Your task to perform on an android device: Go to network settings Image 0: 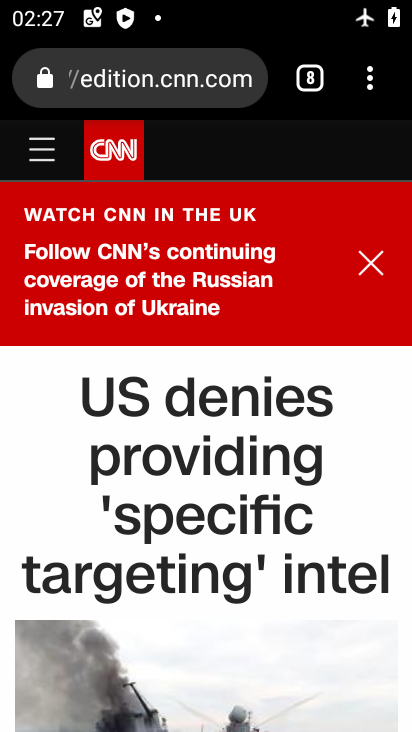
Step 0: press home button
Your task to perform on an android device: Go to network settings Image 1: 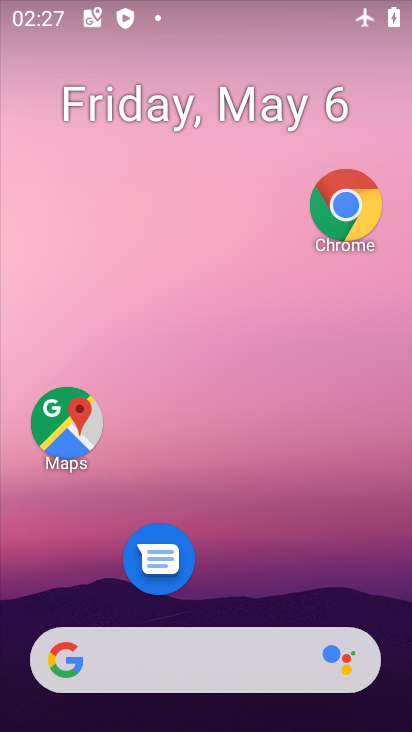
Step 1: drag from (148, 662) to (379, 8)
Your task to perform on an android device: Go to network settings Image 2: 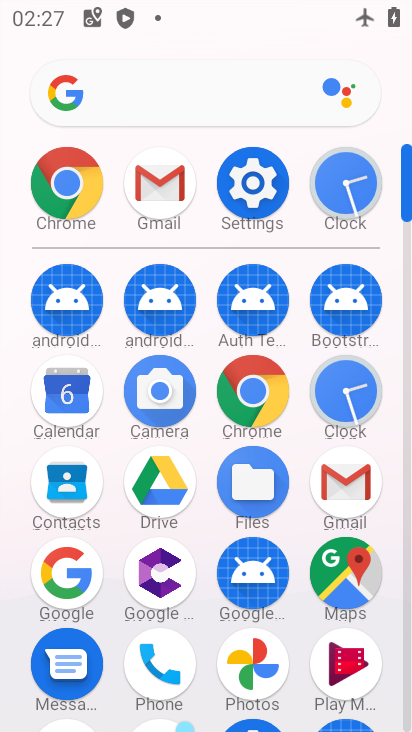
Step 2: click (257, 182)
Your task to perform on an android device: Go to network settings Image 3: 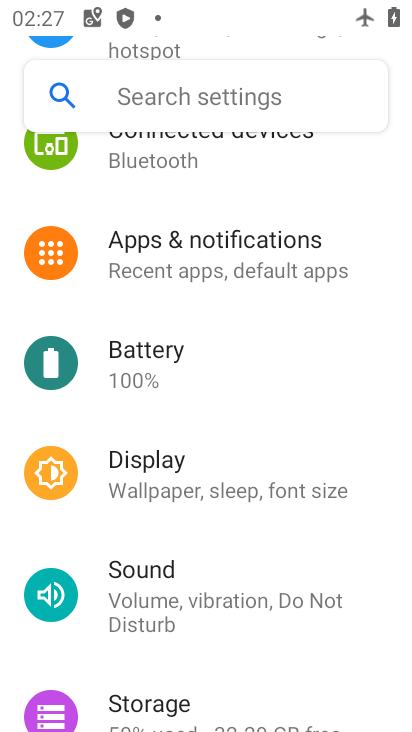
Step 3: drag from (328, 173) to (232, 631)
Your task to perform on an android device: Go to network settings Image 4: 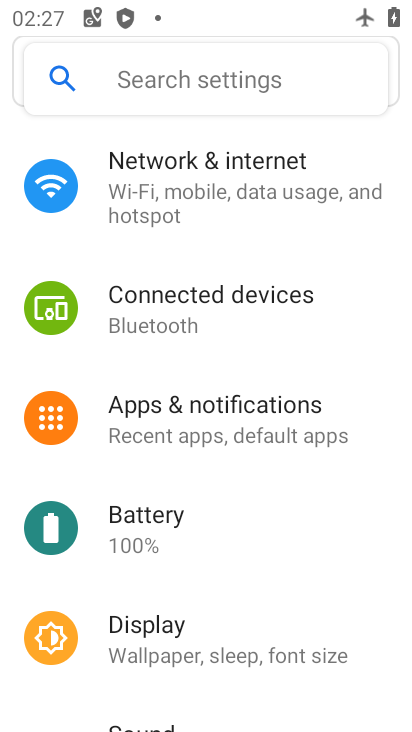
Step 4: click (242, 164)
Your task to perform on an android device: Go to network settings Image 5: 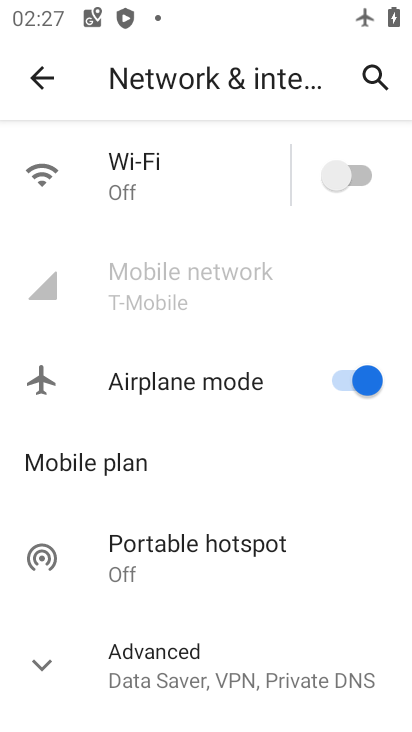
Step 5: task complete